Your task to perform on an android device: check battery use Image 0: 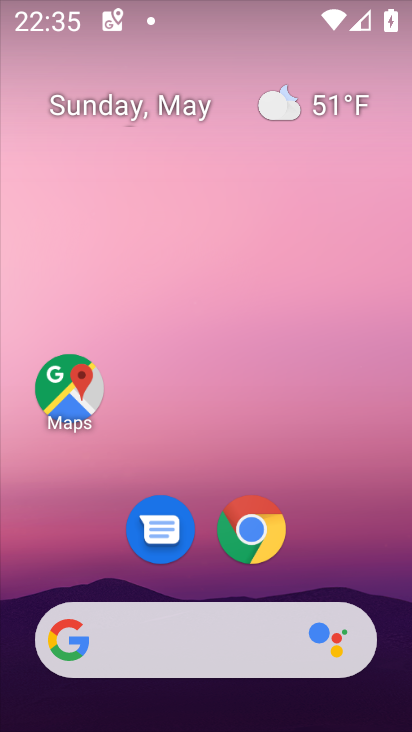
Step 0: drag from (261, 626) to (227, 23)
Your task to perform on an android device: check battery use Image 1: 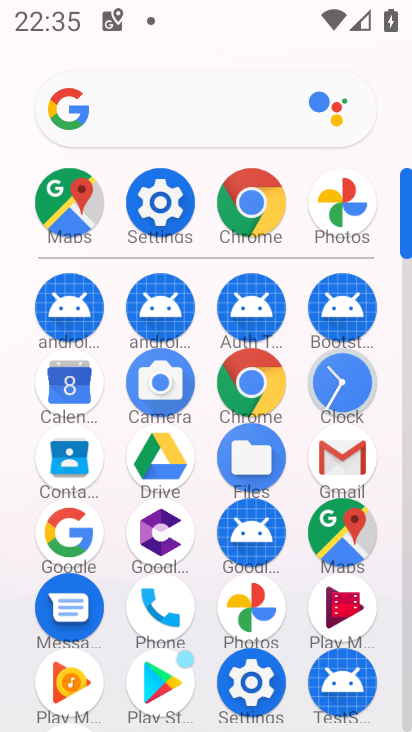
Step 1: click (175, 210)
Your task to perform on an android device: check battery use Image 2: 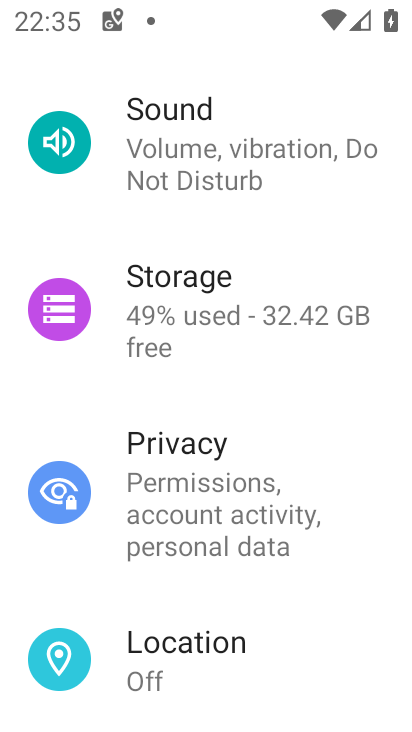
Step 2: drag from (171, 264) to (286, 685)
Your task to perform on an android device: check battery use Image 3: 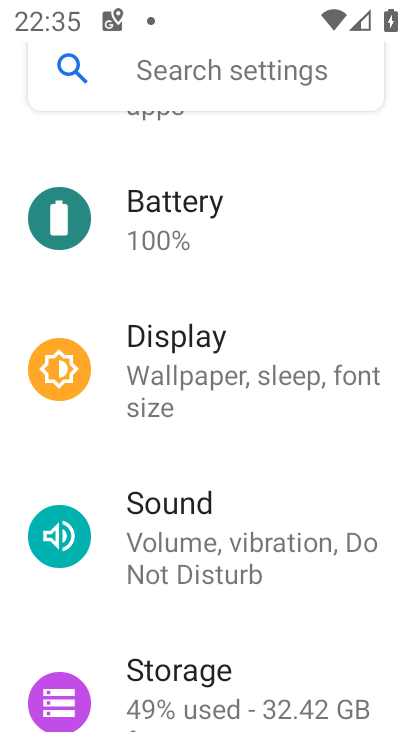
Step 3: click (123, 197)
Your task to perform on an android device: check battery use Image 4: 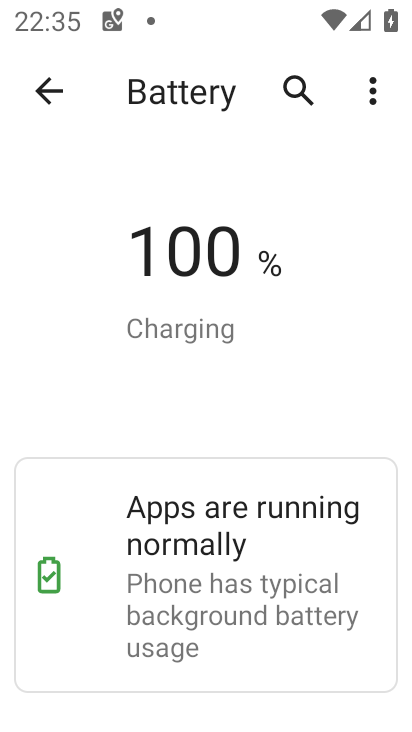
Step 4: task complete